Your task to perform on an android device: Turn off the flashlight Image 0: 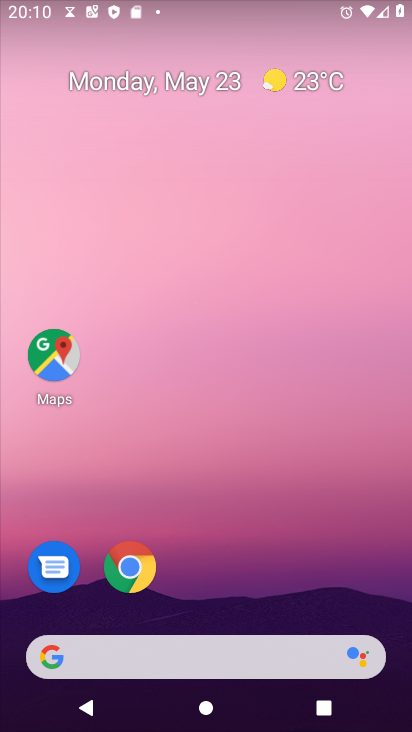
Step 0: drag from (317, 594) to (348, 189)
Your task to perform on an android device: Turn off the flashlight Image 1: 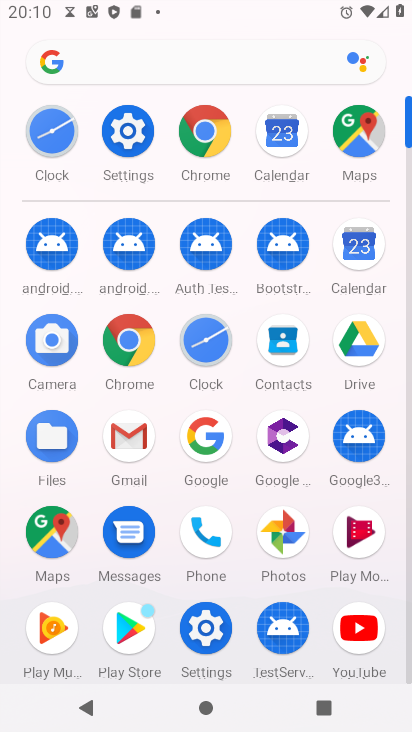
Step 1: click (115, 125)
Your task to perform on an android device: Turn off the flashlight Image 2: 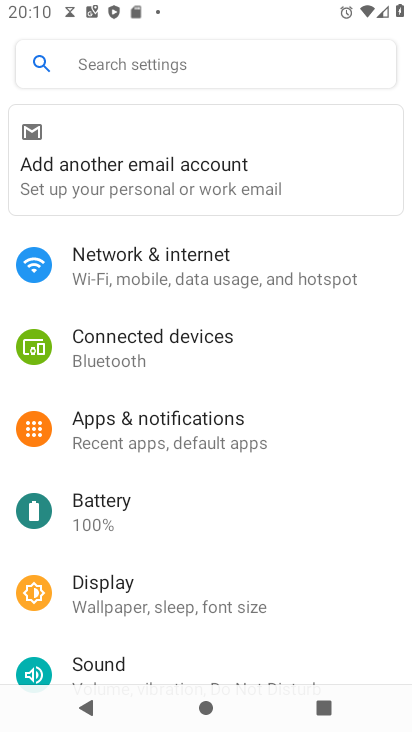
Step 2: task complete